Your task to perform on an android device: When is my next meeting? Image 0: 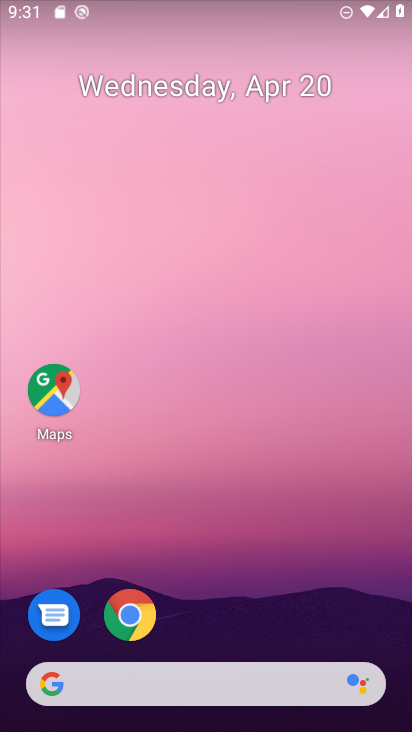
Step 0: drag from (202, 612) to (243, 54)
Your task to perform on an android device: When is my next meeting? Image 1: 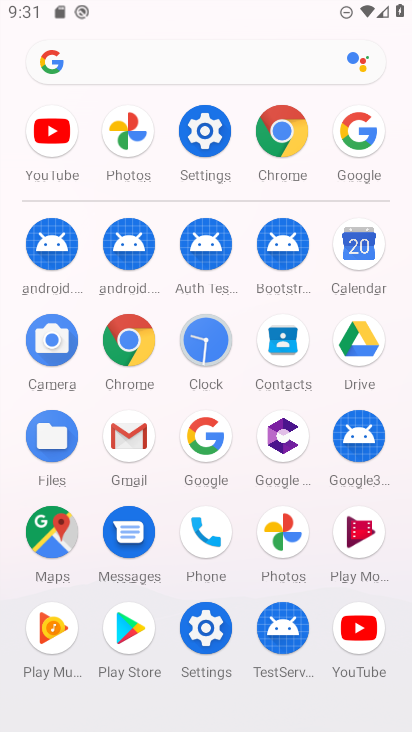
Step 1: click (361, 246)
Your task to perform on an android device: When is my next meeting? Image 2: 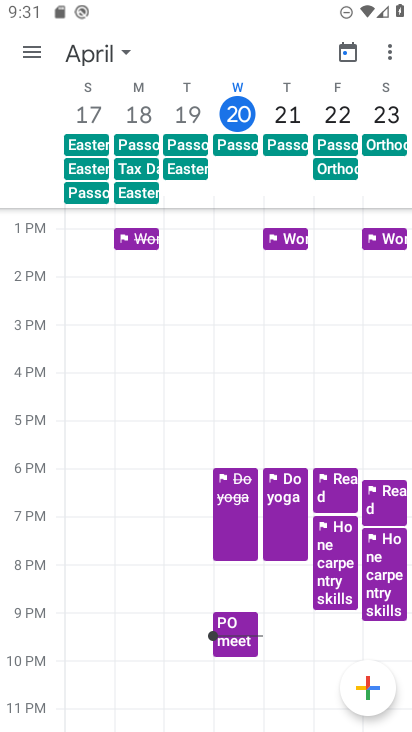
Step 2: click (35, 51)
Your task to perform on an android device: When is my next meeting? Image 3: 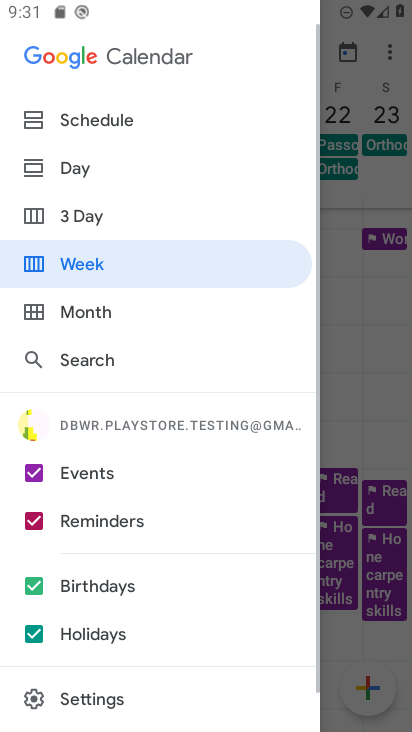
Step 3: click (97, 122)
Your task to perform on an android device: When is my next meeting? Image 4: 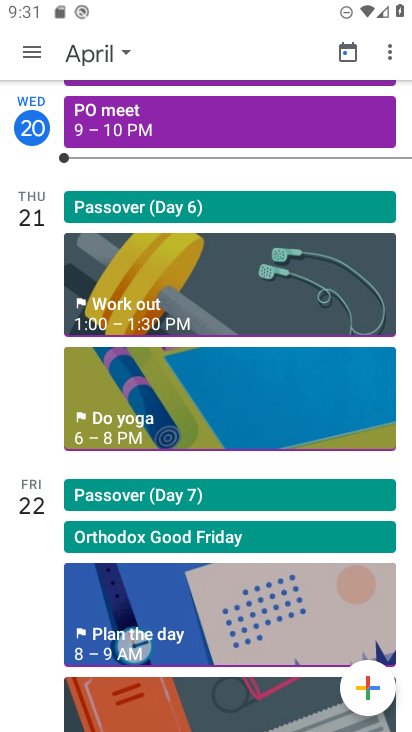
Step 4: click (122, 51)
Your task to perform on an android device: When is my next meeting? Image 5: 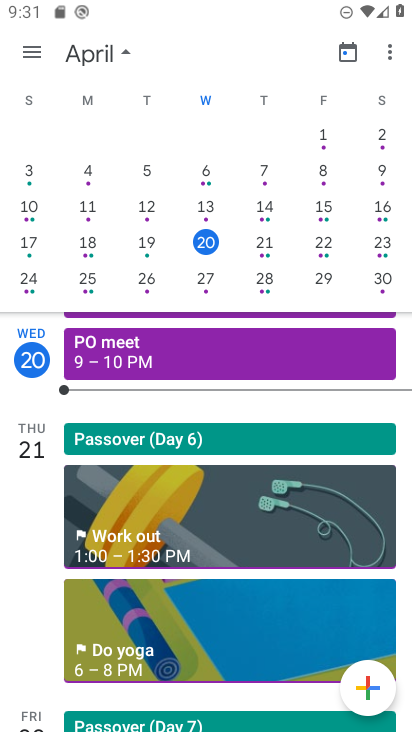
Step 5: click (328, 237)
Your task to perform on an android device: When is my next meeting? Image 6: 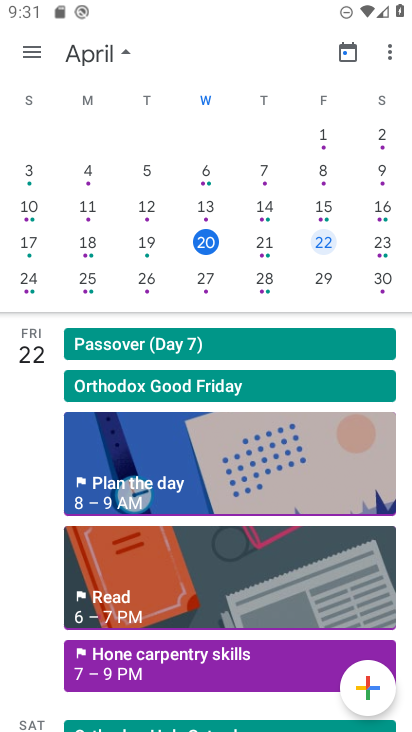
Step 6: task complete